Your task to perform on an android device: delete the emails in spam in the gmail app Image 0: 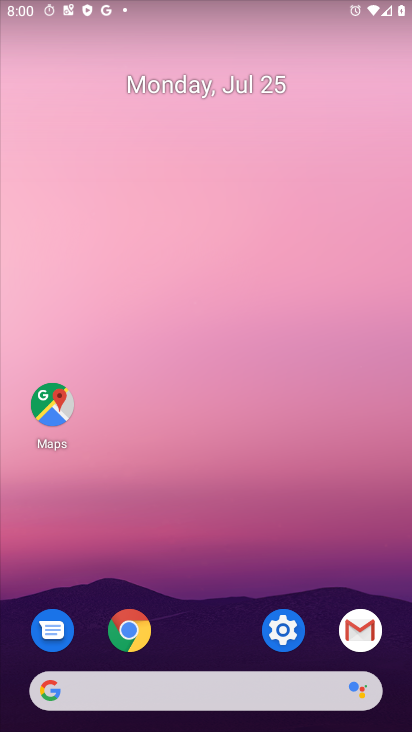
Step 0: click (365, 643)
Your task to perform on an android device: delete the emails in spam in the gmail app Image 1: 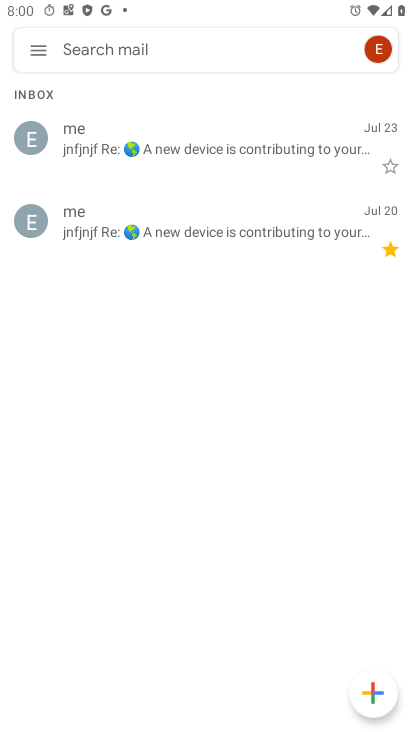
Step 1: click (36, 63)
Your task to perform on an android device: delete the emails in spam in the gmail app Image 2: 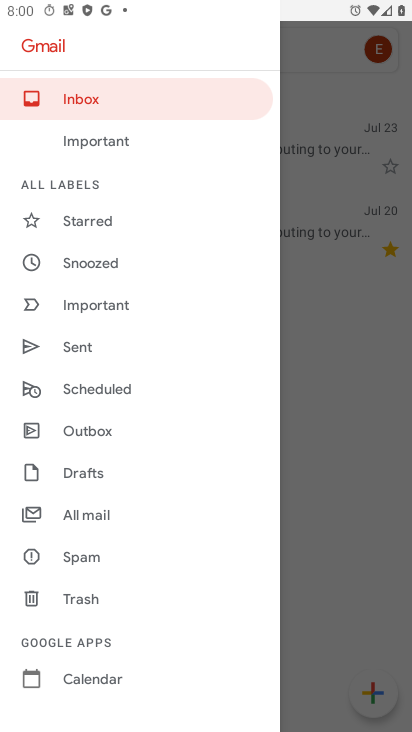
Step 2: click (83, 564)
Your task to perform on an android device: delete the emails in spam in the gmail app Image 3: 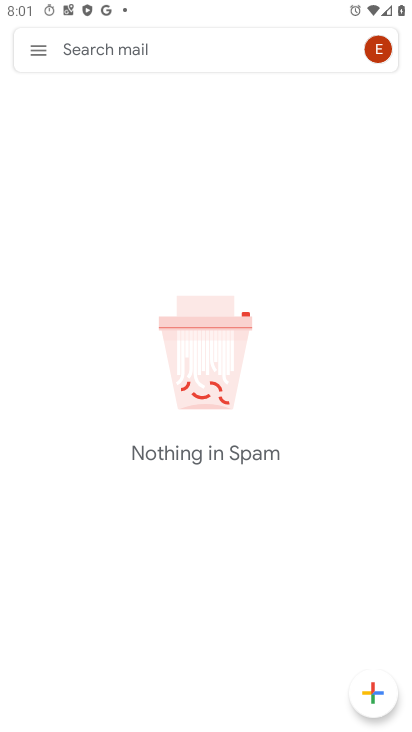
Step 3: task complete